Your task to perform on an android device: delete a single message in the gmail app Image 0: 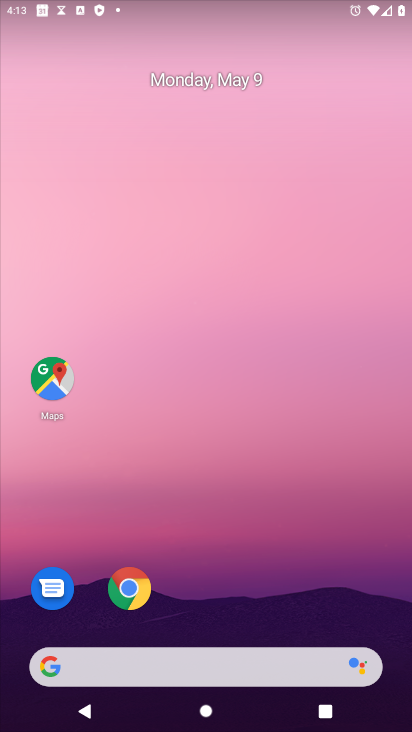
Step 0: drag from (264, 401) to (194, 8)
Your task to perform on an android device: delete a single message in the gmail app Image 1: 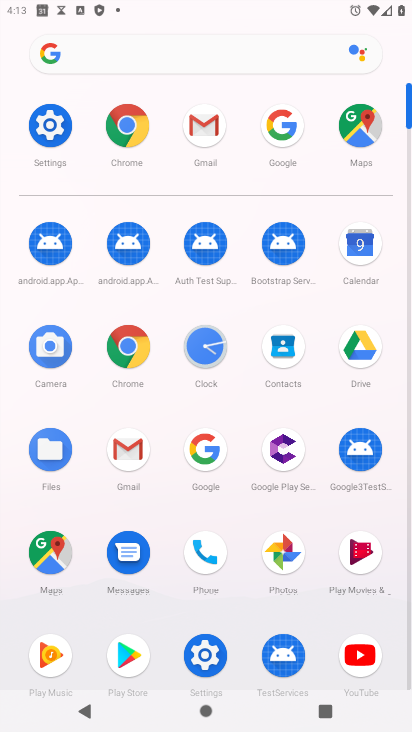
Step 1: click (152, 447)
Your task to perform on an android device: delete a single message in the gmail app Image 2: 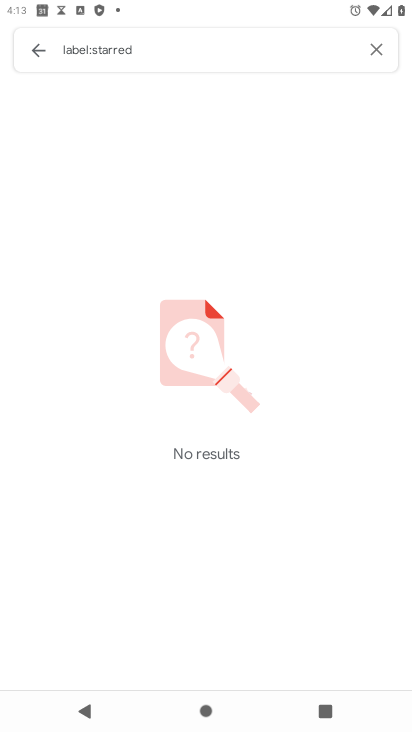
Step 2: click (49, 46)
Your task to perform on an android device: delete a single message in the gmail app Image 3: 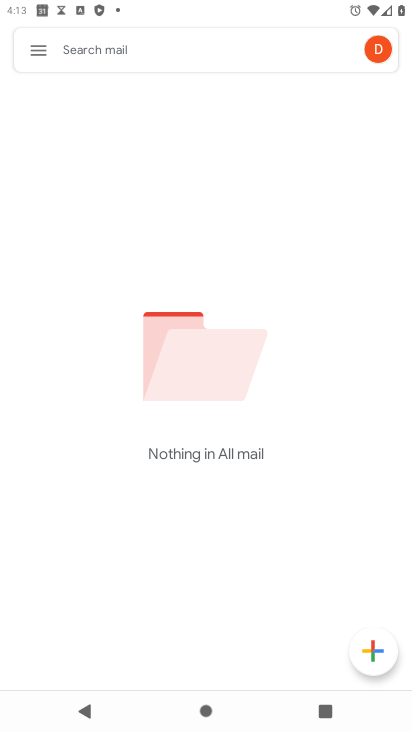
Step 3: click (37, 55)
Your task to perform on an android device: delete a single message in the gmail app Image 4: 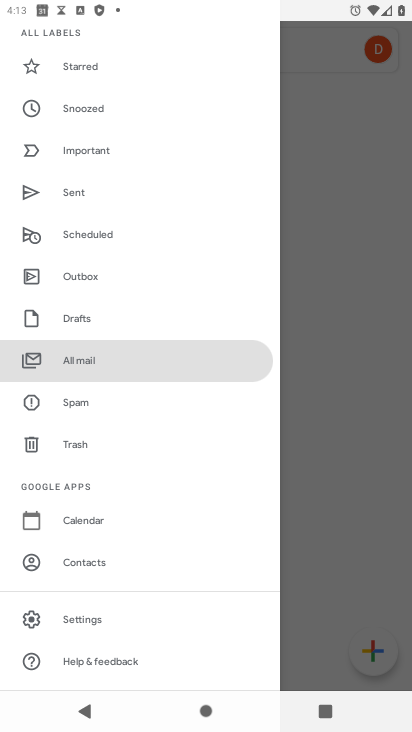
Step 4: click (110, 361)
Your task to perform on an android device: delete a single message in the gmail app Image 5: 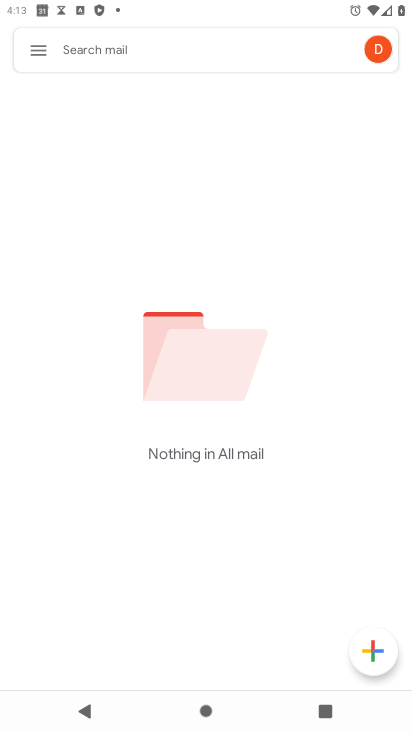
Step 5: task complete